Your task to perform on an android device: When is my next meeting? Image 0: 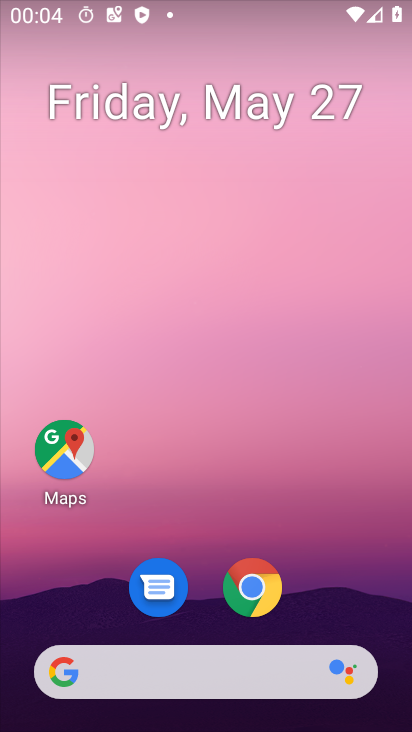
Step 0: drag from (340, 644) to (386, 9)
Your task to perform on an android device: When is my next meeting? Image 1: 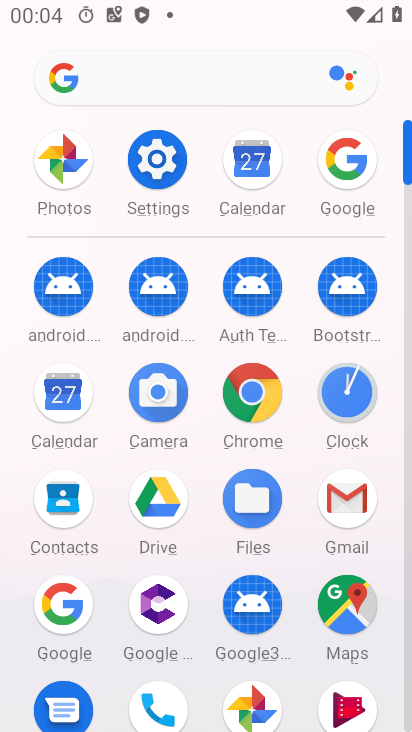
Step 1: click (254, 169)
Your task to perform on an android device: When is my next meeting? Image 2: 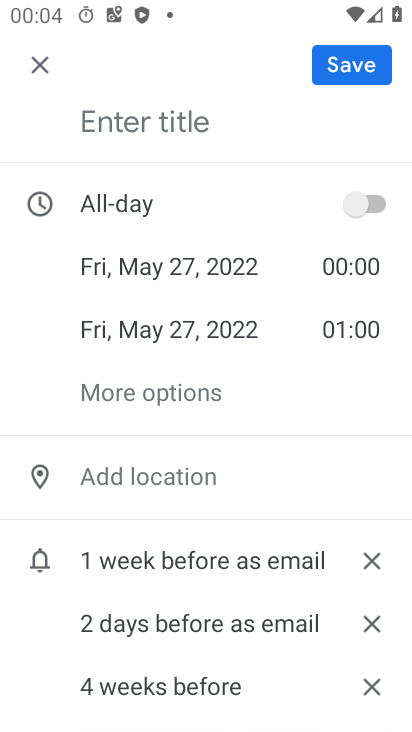
Step 2: click (37, 66)
Your task to perform on an android device: When is my next meeting? Image 3: 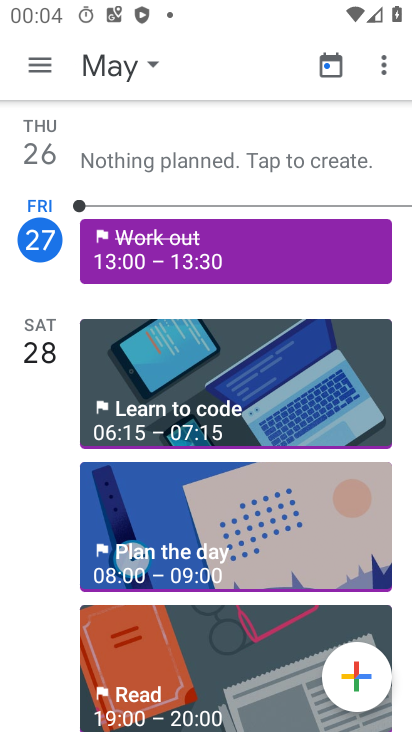
Step 3: drag from (190, 516) to (212, 180)
Your task to perform on an android device: When is my next meeting? Image 4: 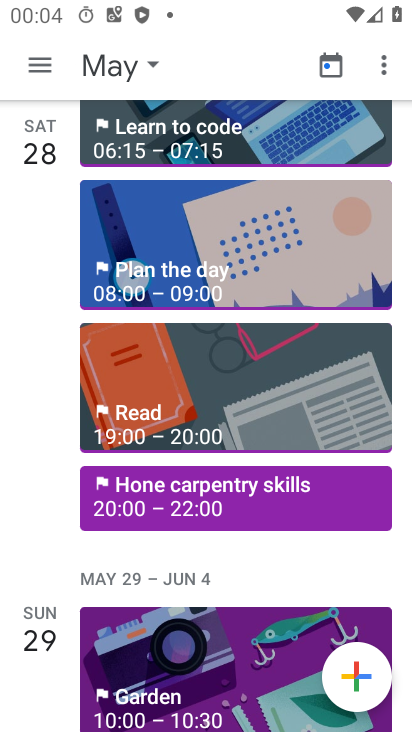
Step 4: drag from (204, 570) to (231, 161)
Your task to perform on an android device: When is my next meeting? Image 5: 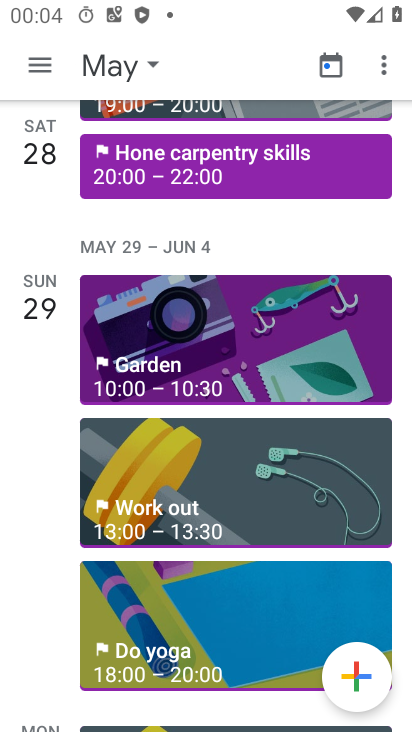
Step 5: drag from (193, 568) to (206, 133)
Your task to perform on an android device: When is my next meeting? Image 6: 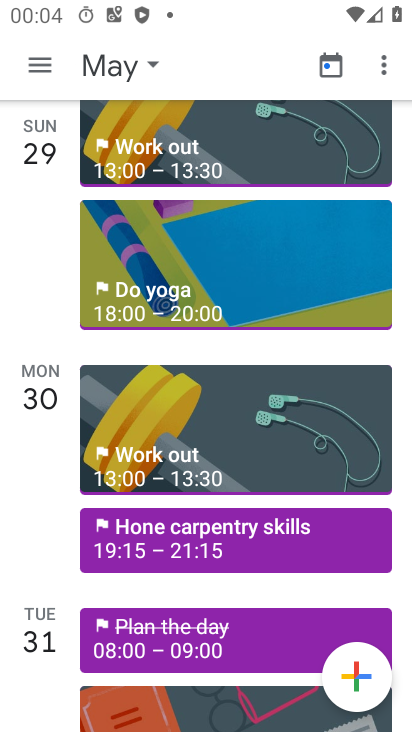
Step 6: drag from (170, 546) to (183, 166)
Your task to perform on an android device: When is my next meeting? Image 7: 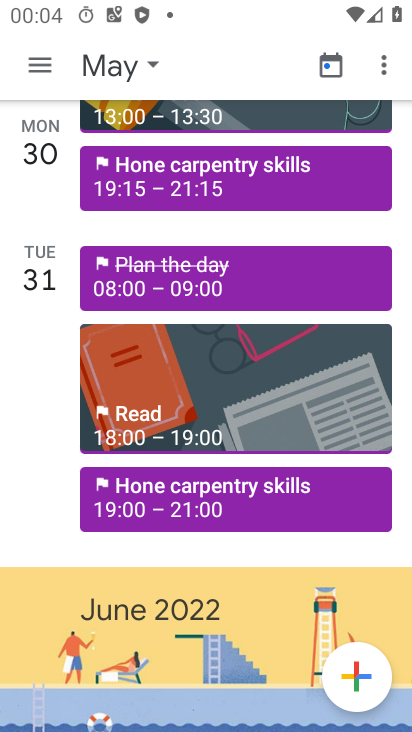
Step 7: drag from (130, 575) to (156, 148)
Your task to perform on an android device: When is my next meeting? Image 8: 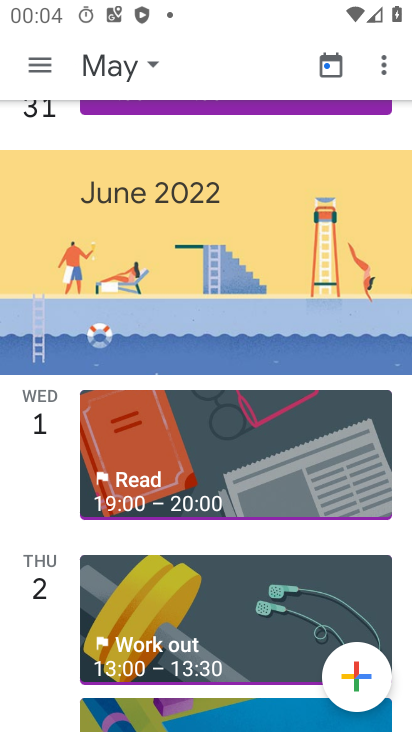
Step 8: drag from (159, 547) to (165, 199)
Your task to perform on an android device: When is my next meeting? Image 9: 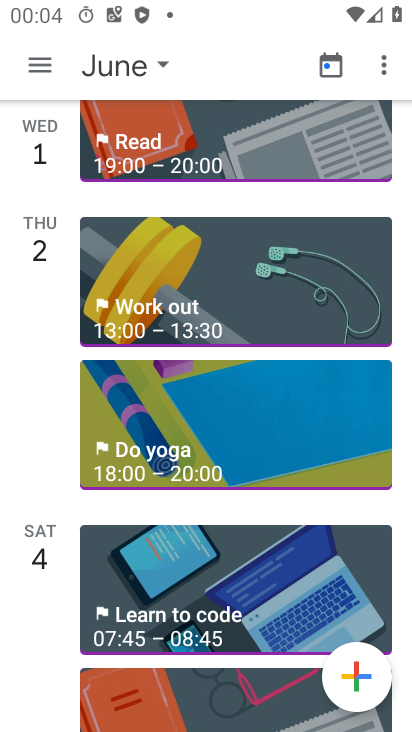
Step 9: drag from (125, 580) to (168, 178)
Your task to perform on an android device: When is my next meeting? Image 10: 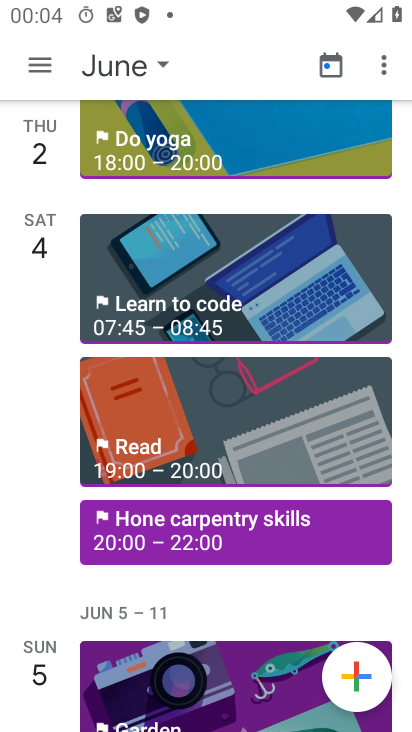
Step 10: drag from (165, 522) to (179, 148)
Your task to perform on an android device: When is my next meeting? Image 11: 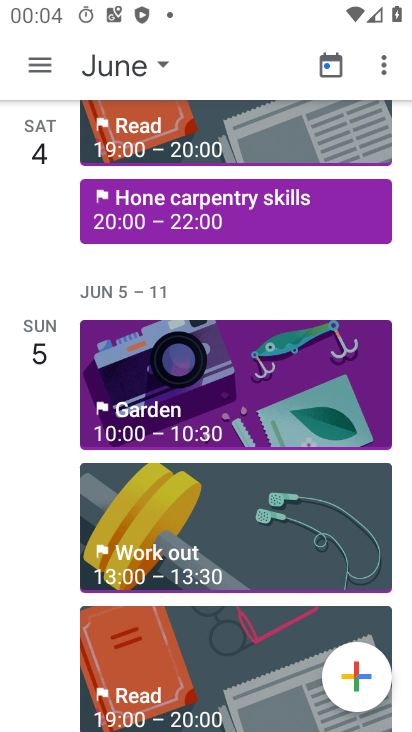
Step 11: drag from (159, 575) to (183, 195)
Your task to perform on an android device: When is my next meeting? Image 12: 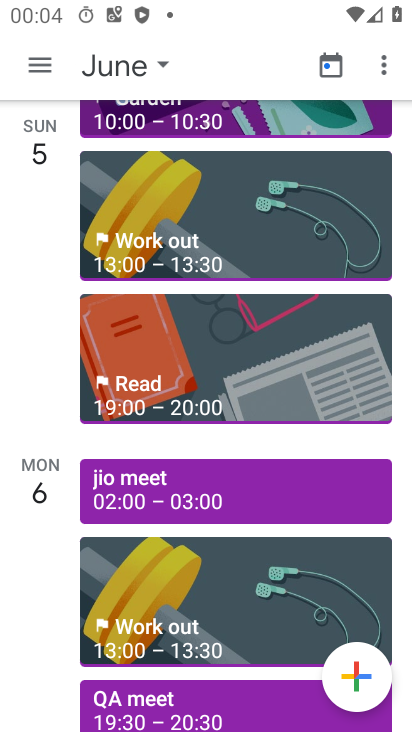
Step 12: click (162, 496)
Your task to perform on an android device: When is my next meeting? Image 13: 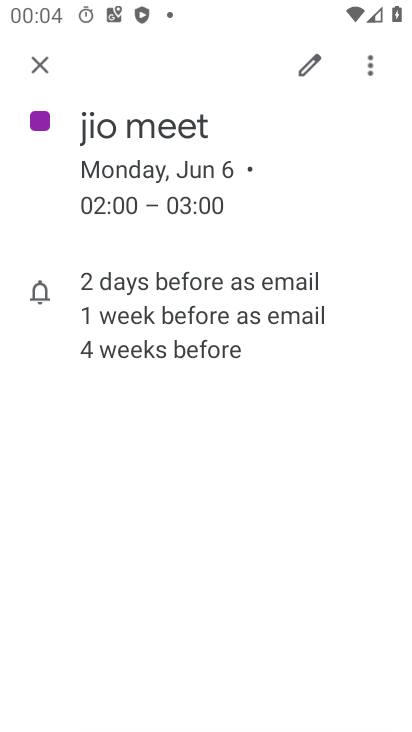
Step 13: task complete